Your task to perform on an android device: check out phone information Image 0: 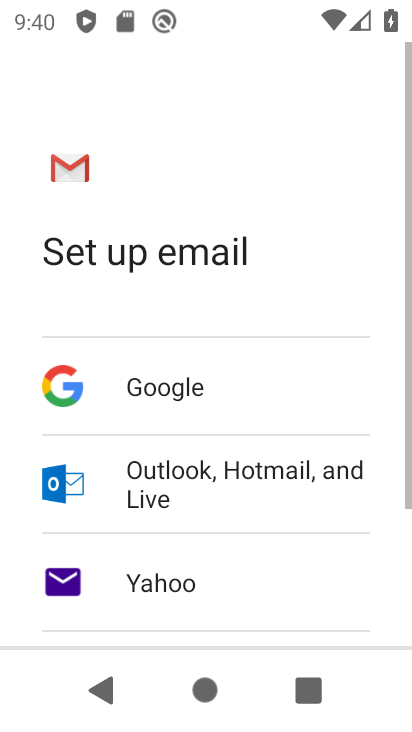
Step 0: press home button
Your task to perform on an android device: check out phone information Image 1: 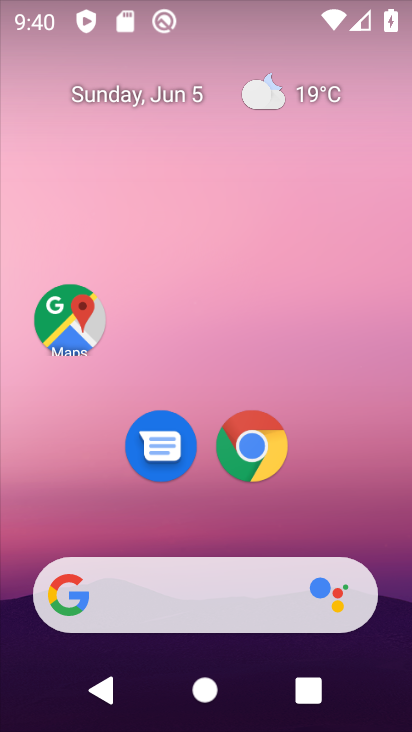
Step 1: drag from (192, 511) to (151, 12)
Your task to perform on an android device: check out phone information Image 2: 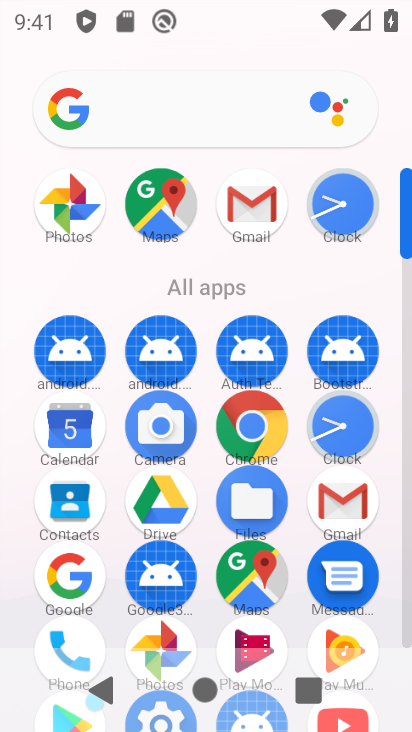
Step 2: drag from (206, 537) to (179, 159)
Your task to perform on an android device: check out phone information Image 3: 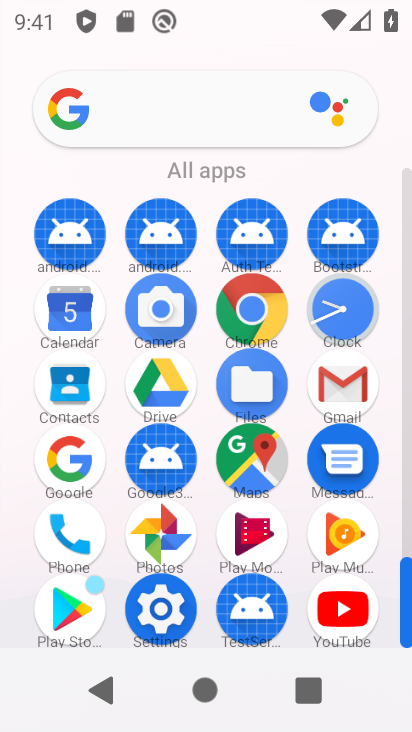
Step 3: click (153, 615)
Your task to perform on an android device: check out phone information Image 4: 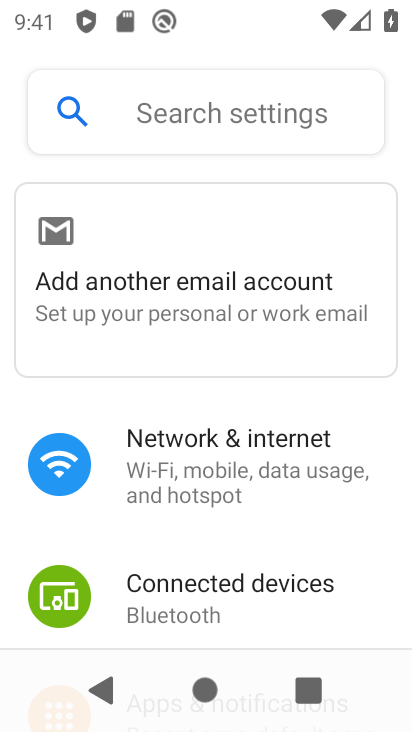
Step 4: drag from (271, 607) to (269, 180)
Your task to perform on an android device: check out phone information Image 5: 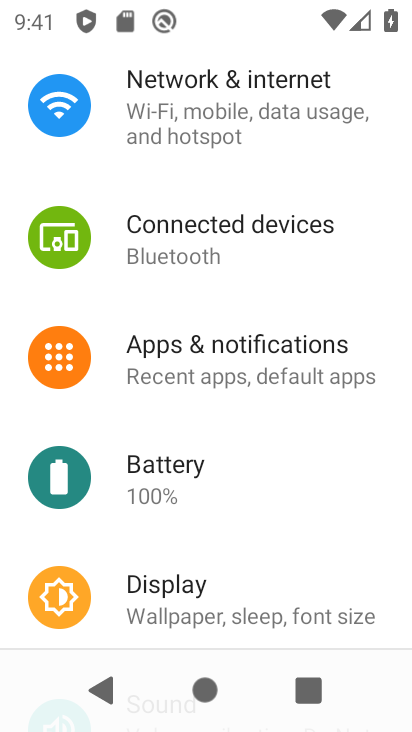
Step 5: drag from (218, 595) to (212, 46)
Your task to perform on an android device: check out phone information Image 6: 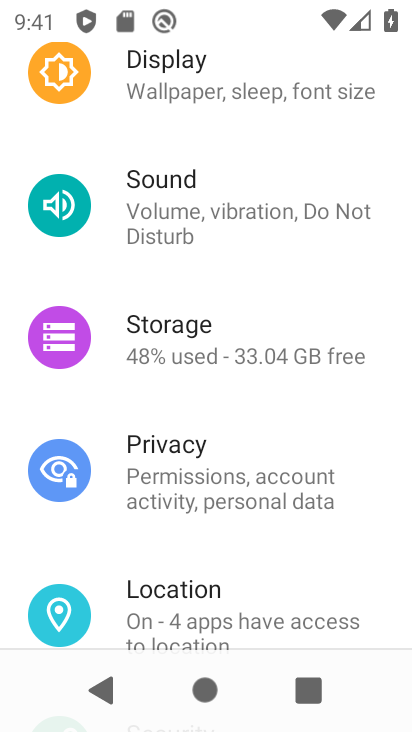
Step 6: drag from (176, 564) to (177, 41)
Your task to perform on an android device: check out phone information Image 7: 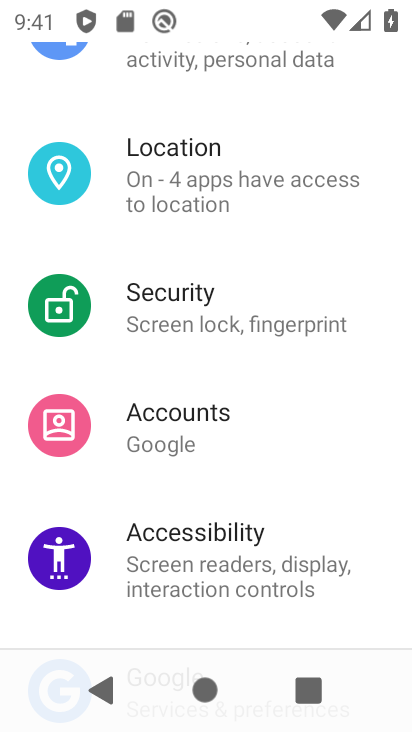
Step 7: drag from (207, 594) to (219, 46)
Your task to perform on an android device: check out phone information Image 8: 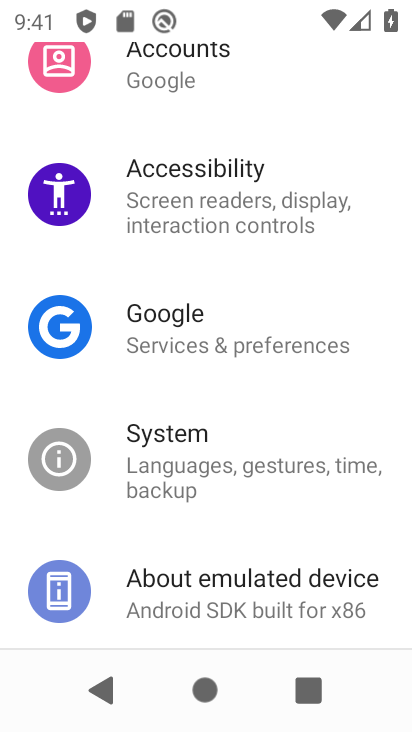
Step 8: click (238, 593)
Your task to perform on an android device: check out phone information Image 9: 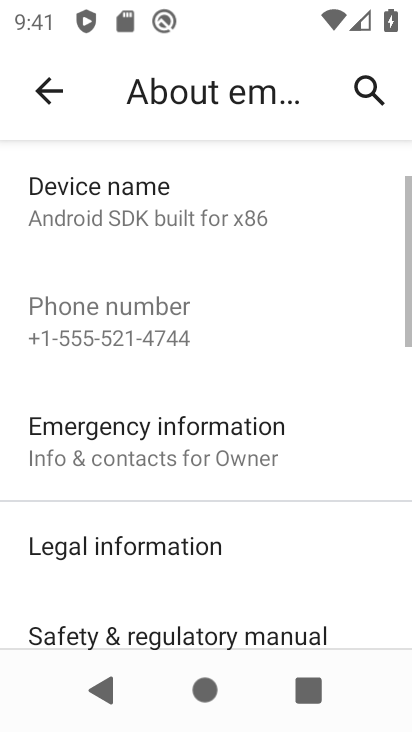
Step 9: task complete